Your task to perform on an android device: toggle translation in the chrome app Image 0: 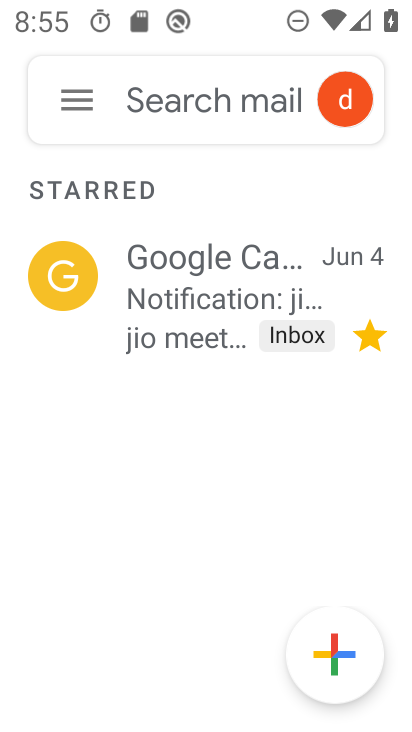
Step 0: press home button
Your task to perform on an android device: toggle translation in the chrome app Image 1: 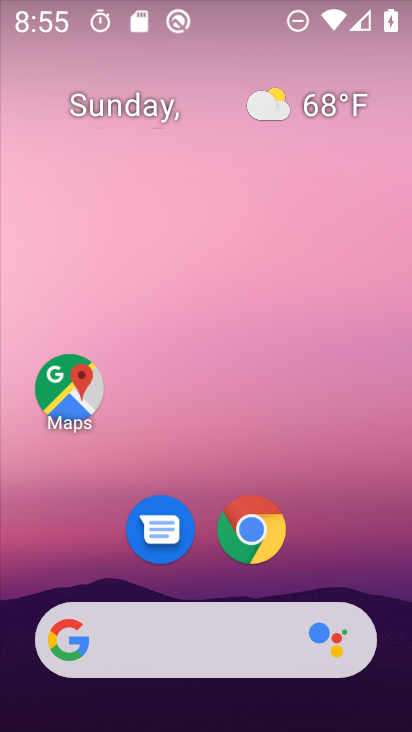
Step 1: click (252, 525)
Your task to perform on an android device: toggle translation in the chrome app Image 2: 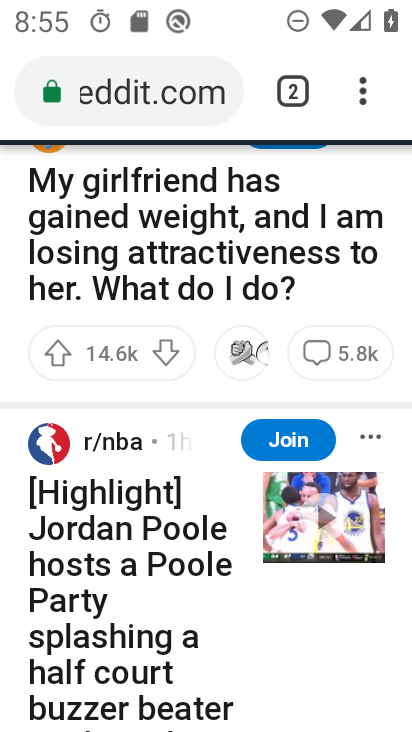
Step 2: click (366, 87)
Your task to perform on an android device: toggle translation in the chrome app Image 3: 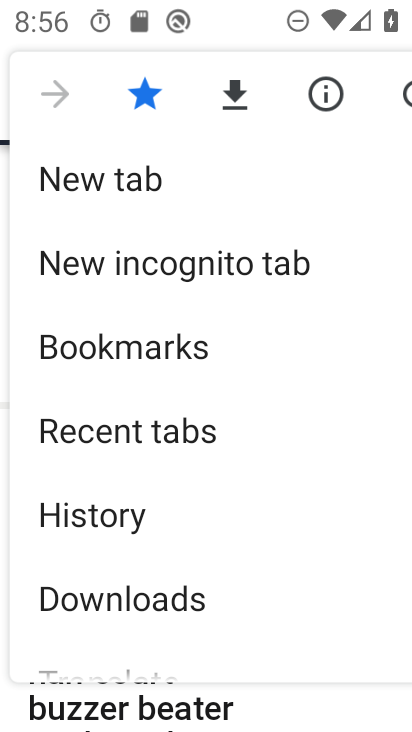
Step 3: drag from (227, 650) to (274, 152)
Your task to perform on an android device: toggle translation in the chrome app Image 4: 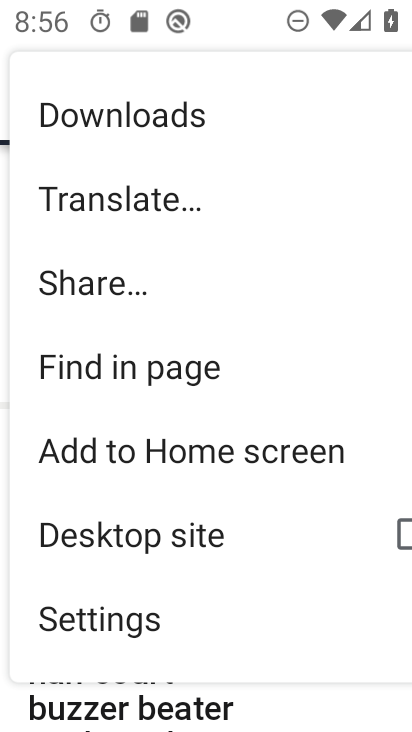
Step 4: click (175, 615)
Your task to perform on an android device: toggle translation in the chrome app Image 5: 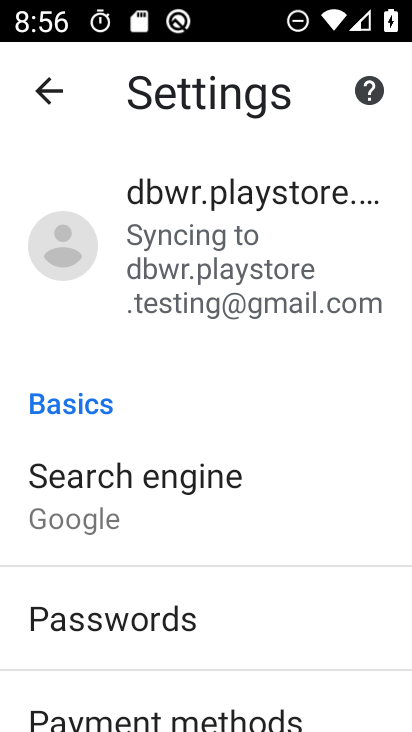
Step 5: drag from (253, 687) to (261, 172)
Your task to perform on an android device: toggle translation in the chrome app Image 6: 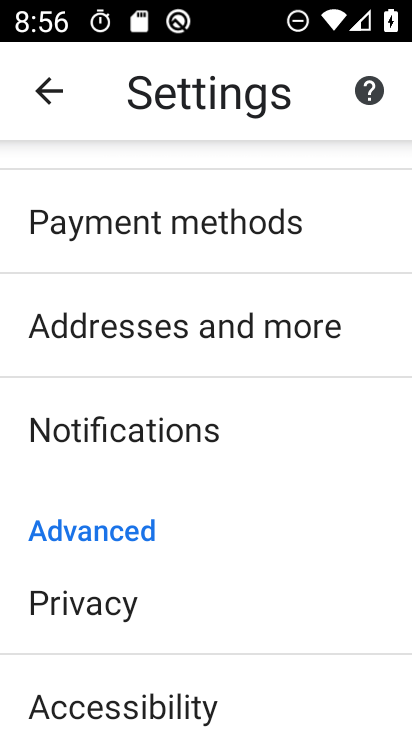
Step 6: drag from (245, 690) to (242, 162)
Your task to perform on an android device: toggle translation in the chrome app Image 7: 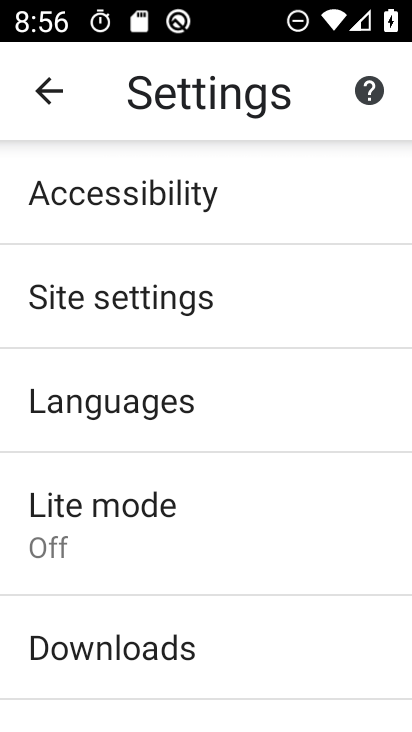
Step 7: click (227, 400)
Your task to perform on an android device: toggle translation in the chrome app Image 8: 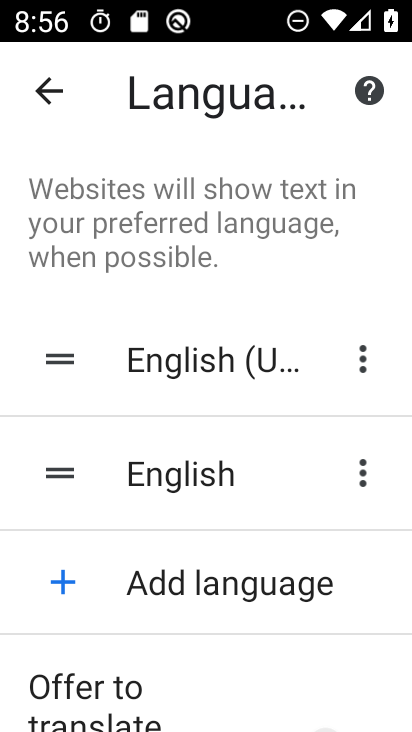
Step 8: drag from (234, 644) to (249, 146)
Your task to perform on an android device: toggle translation in the chrome app Image 9: 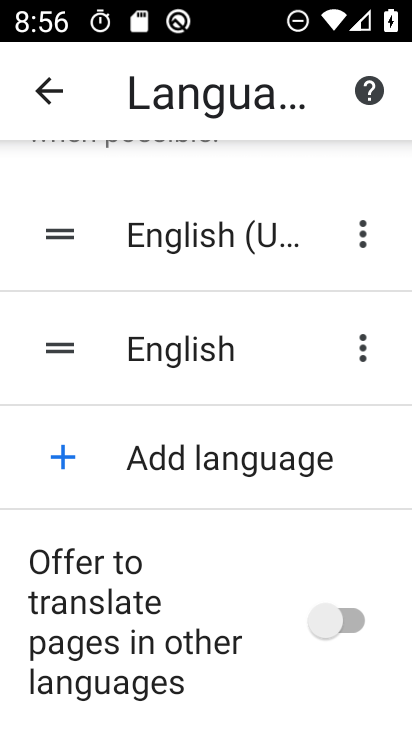
Step 9: click (344, 618)
Your task to perform on an android device: toggle translation in the chrome app Image 10: 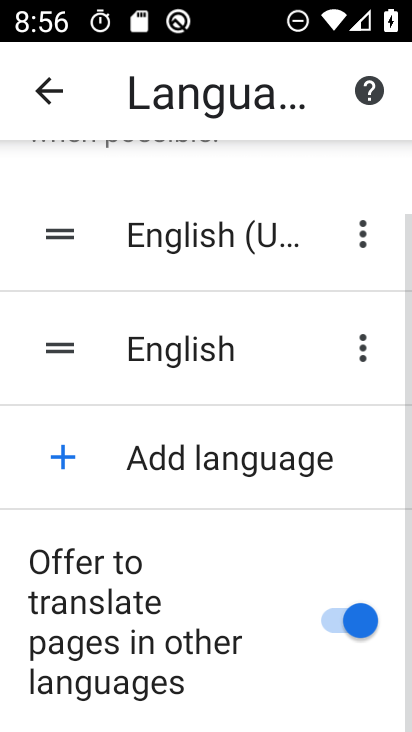
Step 10: task complete